Your task to perform on an android device: Open calendar and show me the second week of next month Image 0: 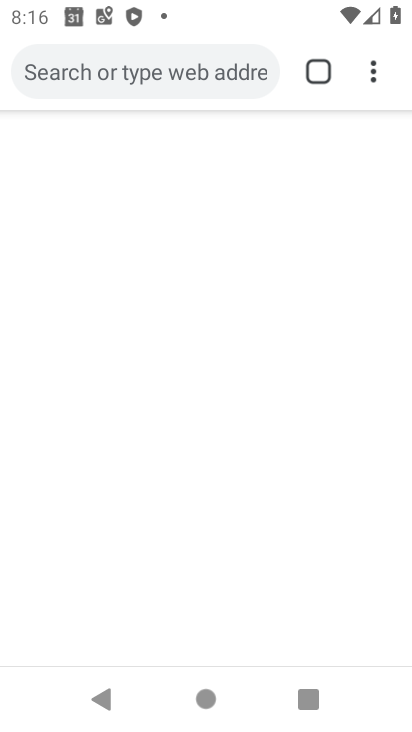
Step 0: press home button
Your task to perform on an android device: Open calendar and show me the second week of next month Image 1: 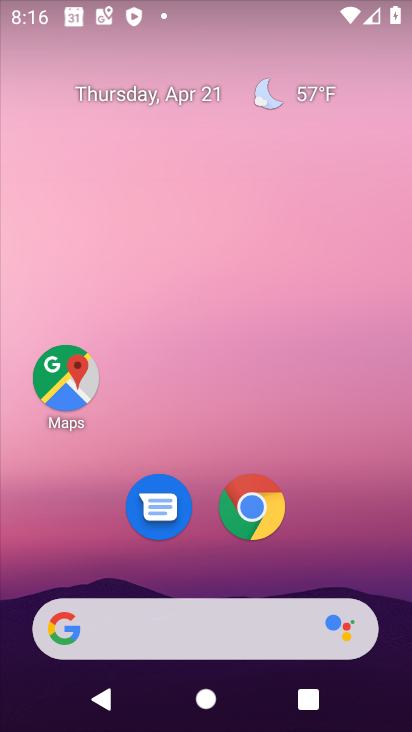
Step 1: drag from (316, 541) to (320, 46)
Your task to perform on an android device: Open calendar and show me the second week of next month Image 2: 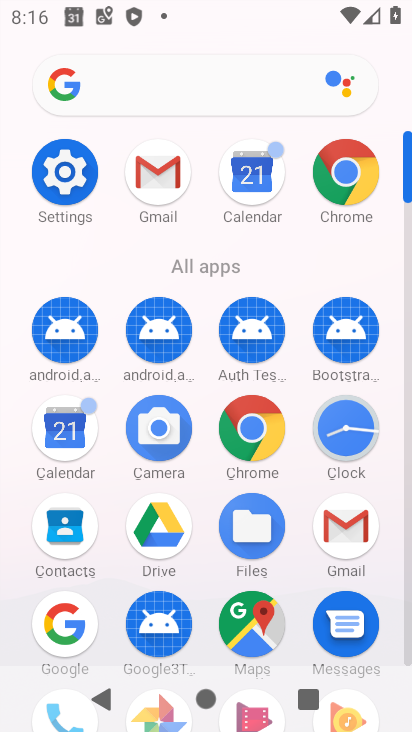
Step 2: click (249, 168)
Your task to perform on an android device: Open calendar and show me the second week of next month Image 3: 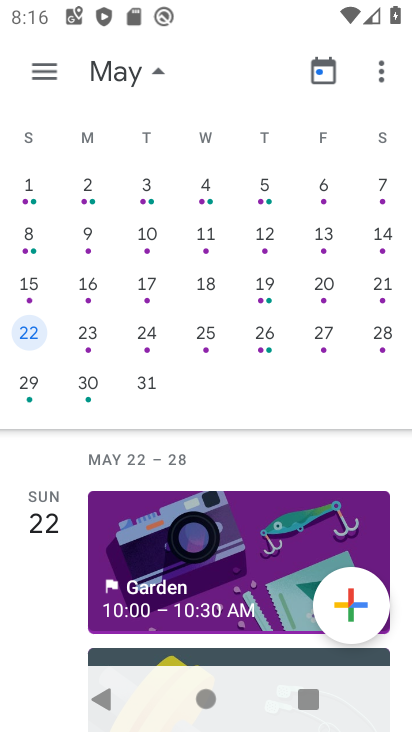
Step 3: click (24, 244)
Your task to perform on an android device: Open calendar and show me the second week of next month Image 4: 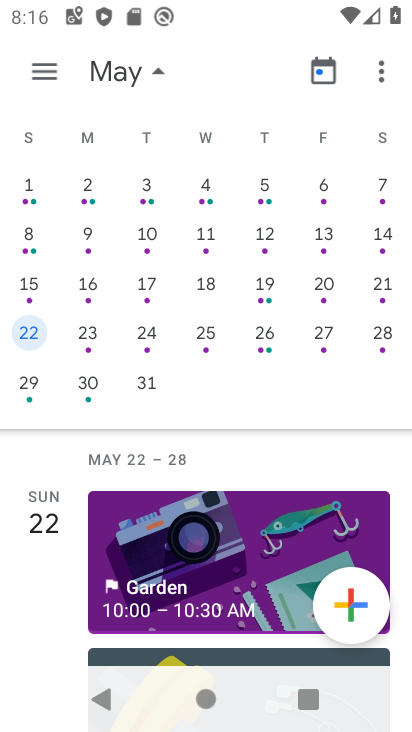
Step 4: click (48, 236)
Your task to perform on an android device: Open calendar and show me the second week of next month Image 5: 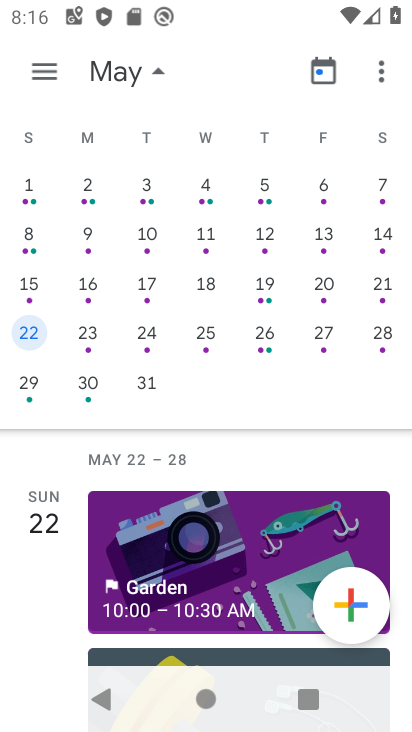
Step 5: click (32, 234)
Your task to perform on an android device: Open calendar and show me the second week of next month Image 6: 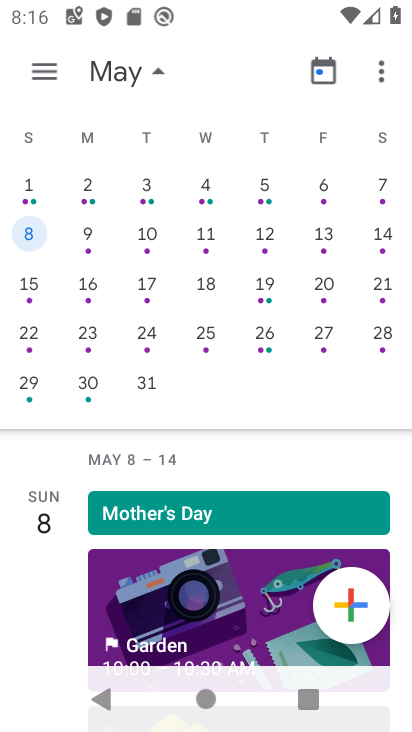
Step 6: task complete